Your task to perform on an android device: read, delete, or share a saved page in the chrome app Image 0: 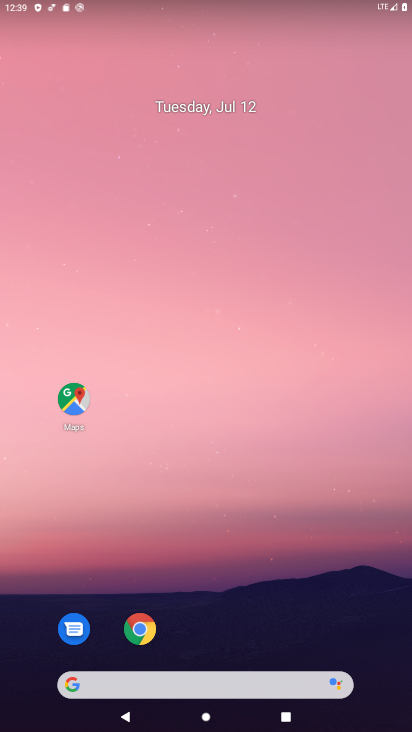
Step 0: drag from (287, 677) to (312, 100)
Your task to perform on an android device: read, delete, or share a saved page in the chrome app Image 1: 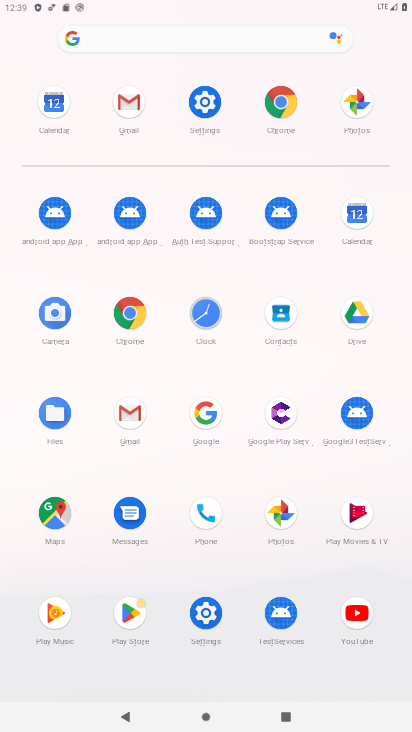
Step 1: click (133, 313)
Your task to perform on an android device: read, delete, or share a saved page in the chrome app Image 2: 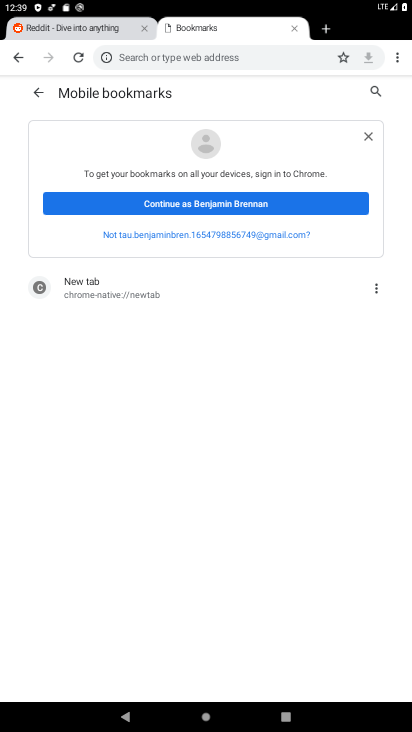
Step 2: task complete